Your task to perform on an android device: Show me the alarms in the clock app Image 0: 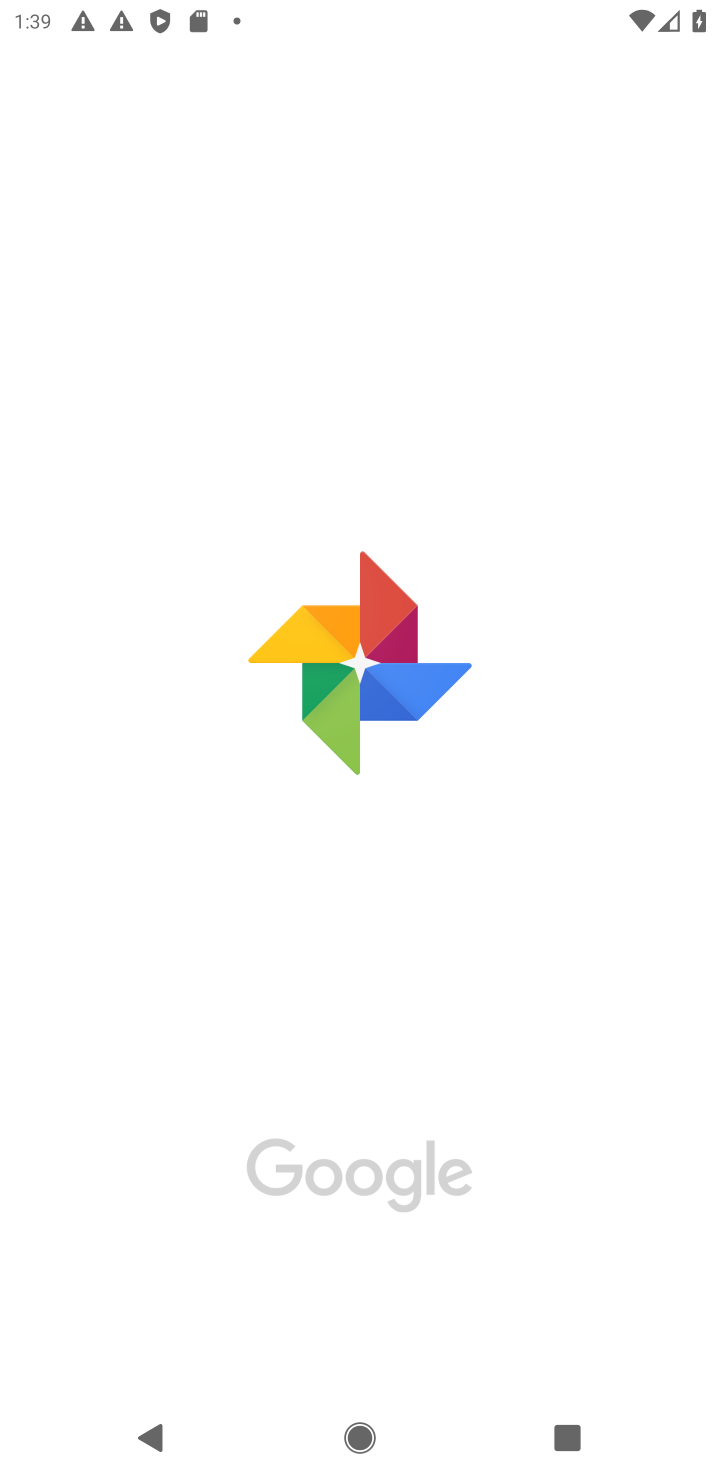
Step 0: press home button
Your task to perform on an android device: Show me the alarms in the clock app Image 1: 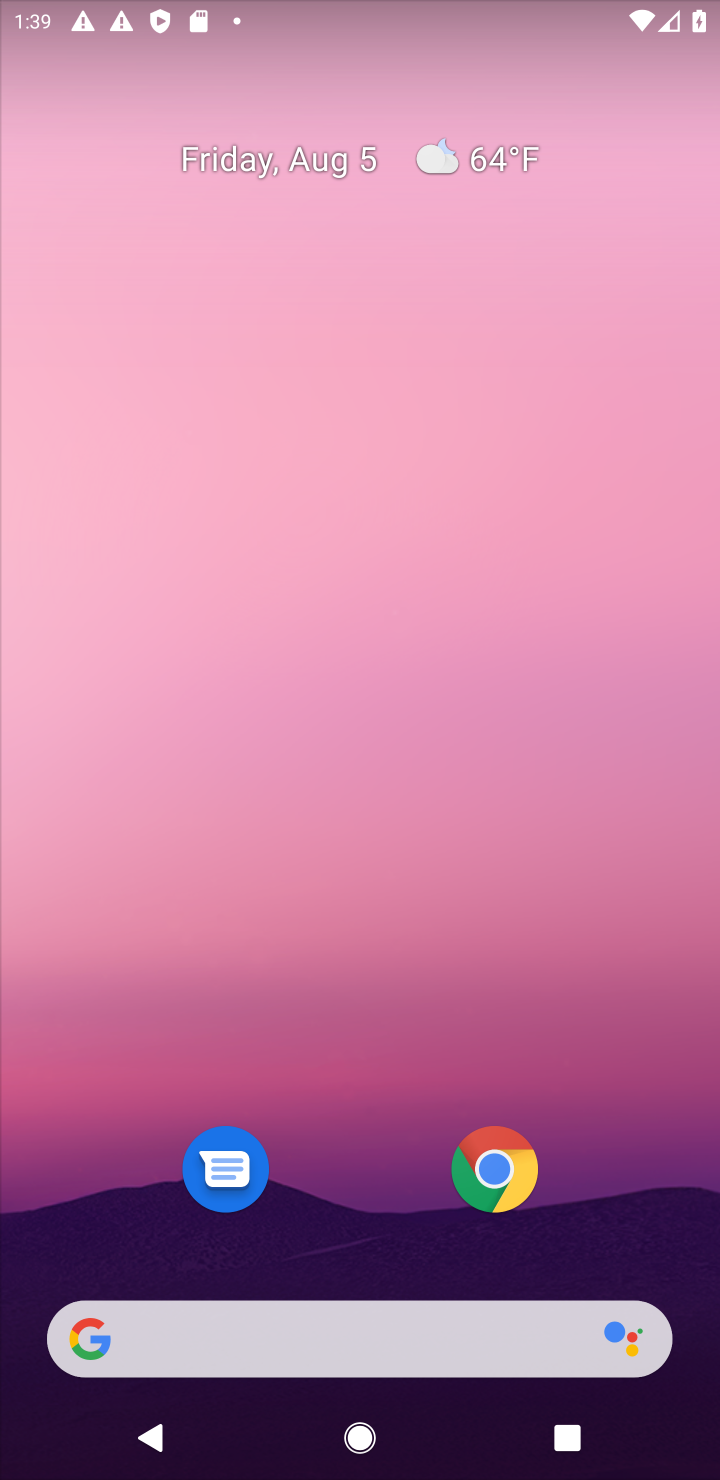
Step 1: drag from (339, 1150) to (284, 401)
Your task to perform on an android device: Show me the alarms in the clock app Image 2: 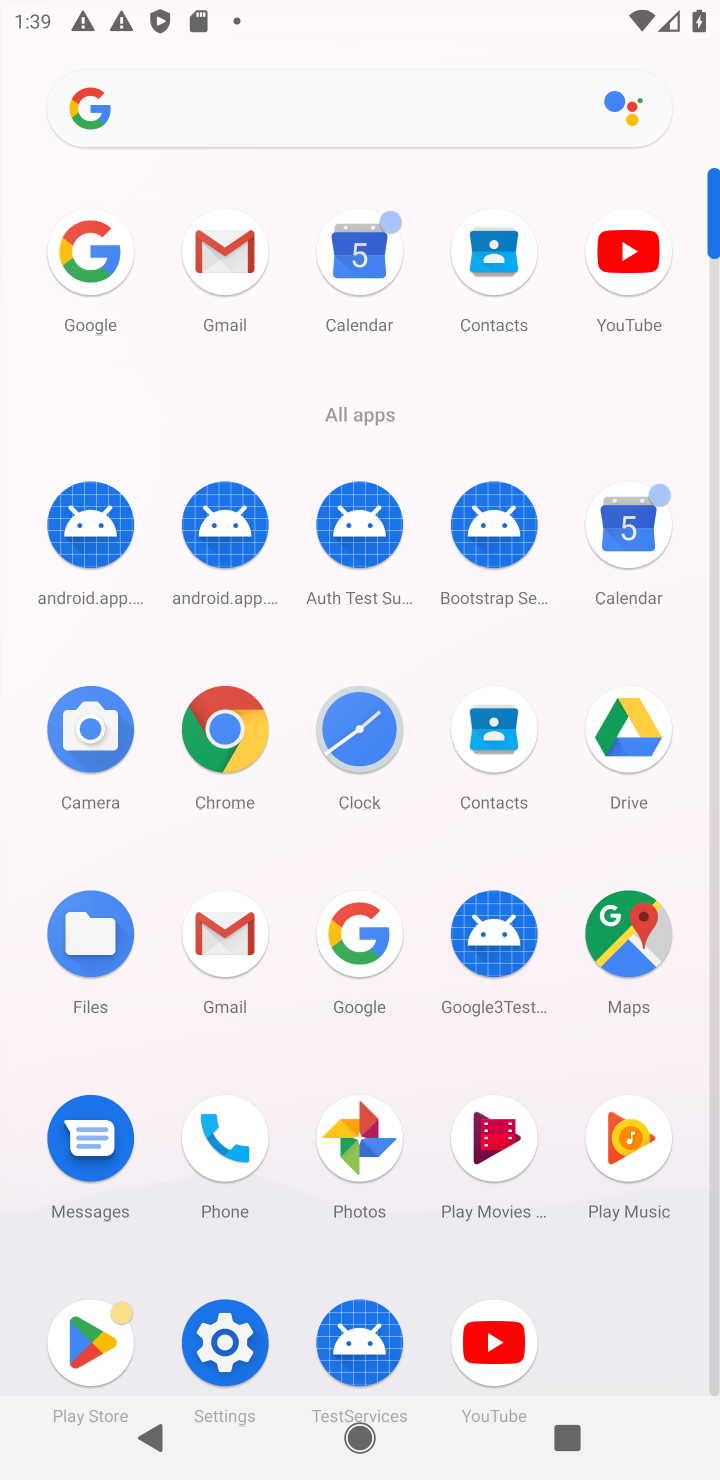
Step 2: click (381, 733)
Your task to perform on an android device: Show me the alarms in the clock app Image 3: 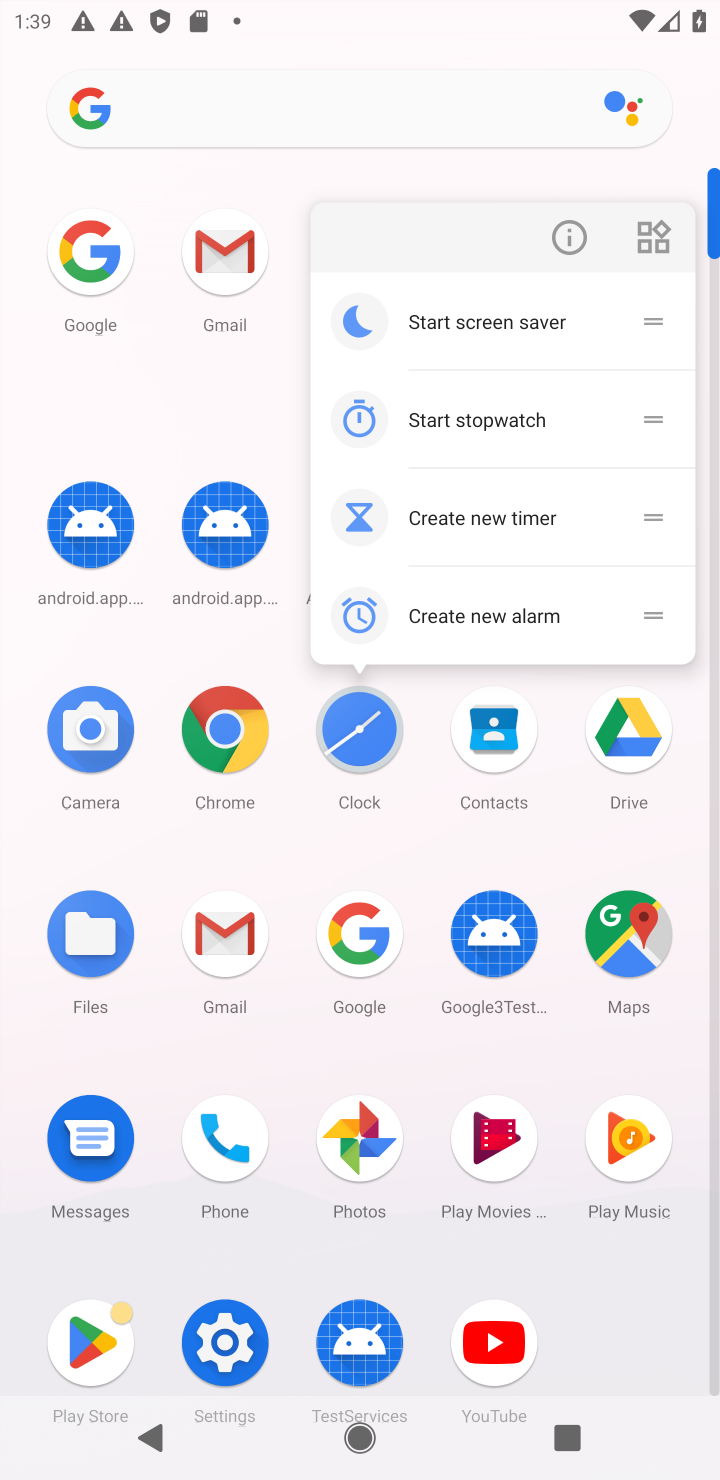
Step 3: click (381, 733)
Your task to perform on an android device: Show me the alarms in the clock app Image 4: 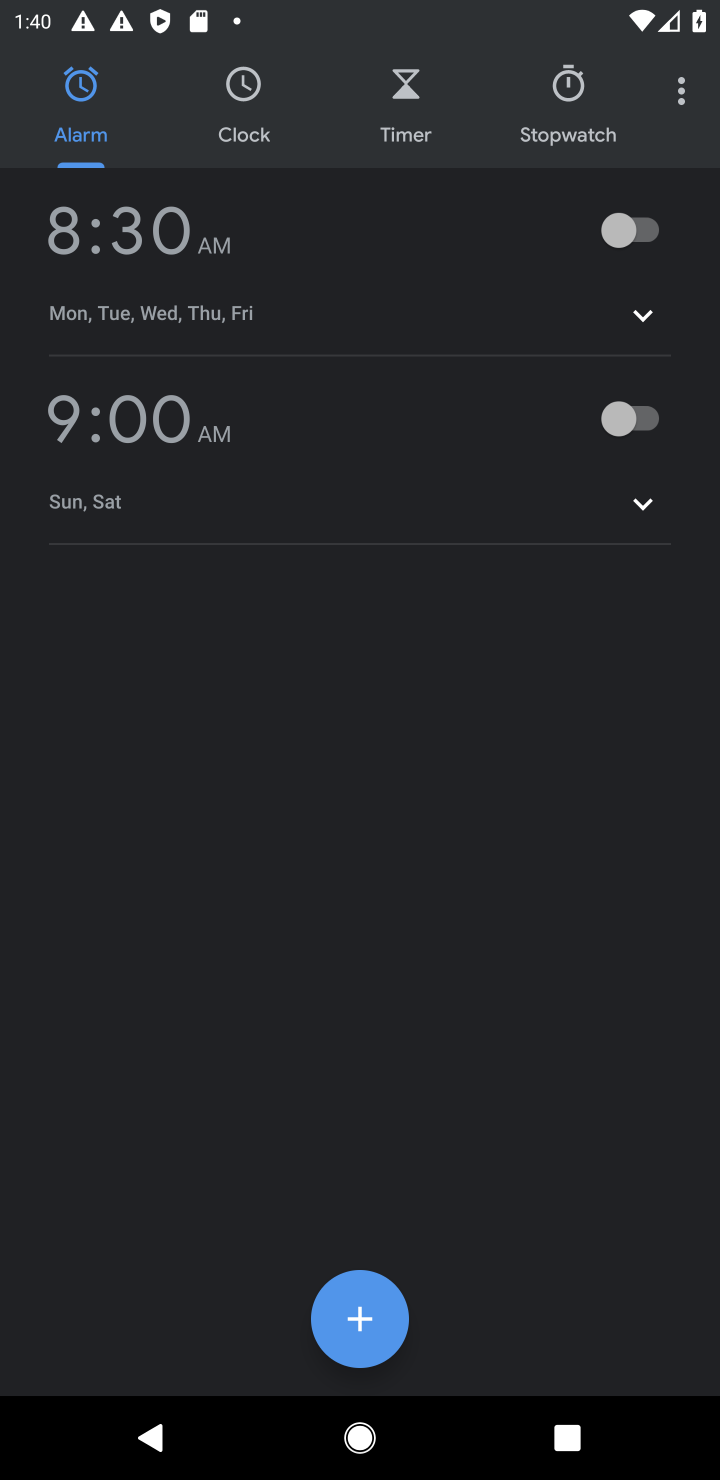
Step 4: task complete